Your task to perform on an android device: all mails in gmail Image 0: 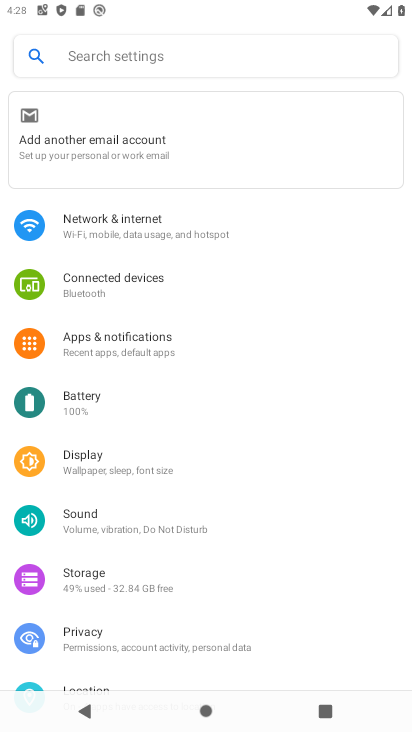
Step 0: click (138, 234)
Your task to perform on an android device: all mails in gmail Image 1: 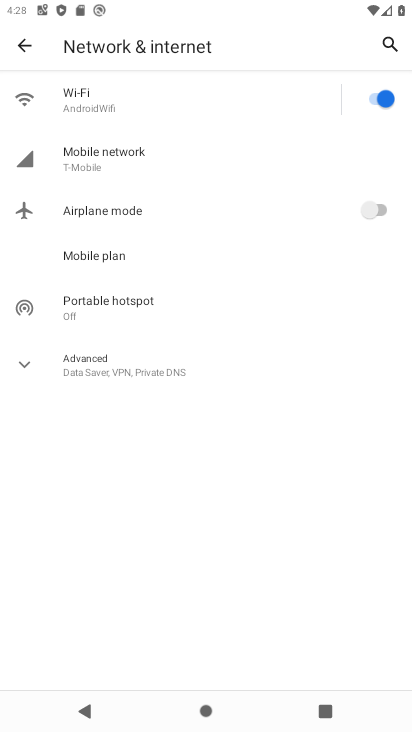
Step 1: click (378, 210)
Your task to perform on an android device: all mails in gmail Image 2: 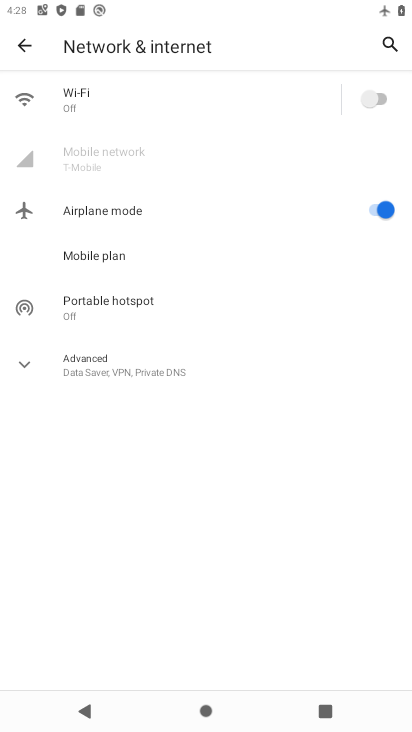
Step 2: task complete